Your task to perform on an android device: check android version Image 0: 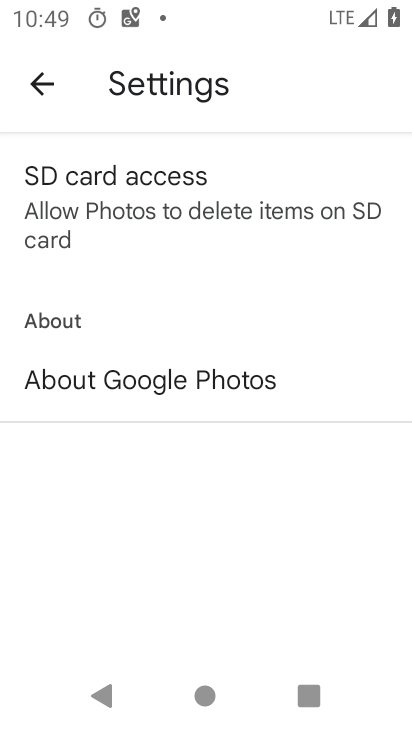
Step 0: press home button
Your task to perform on an android device: check android version Image 1: 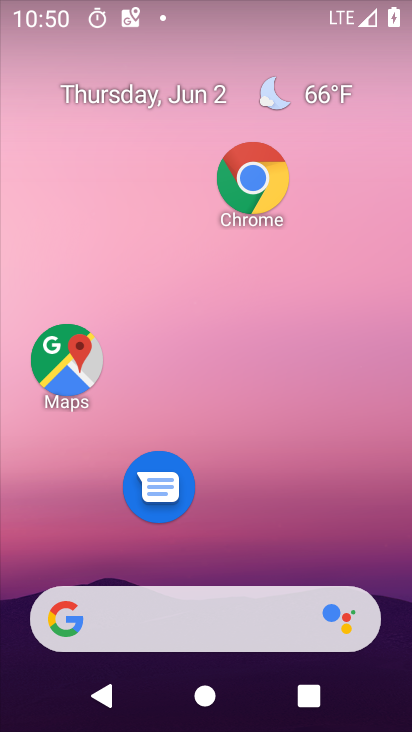
Step 1: drag from (240, 718) to (240, 36)
Your task to perform on an android device: check android version Image 2: 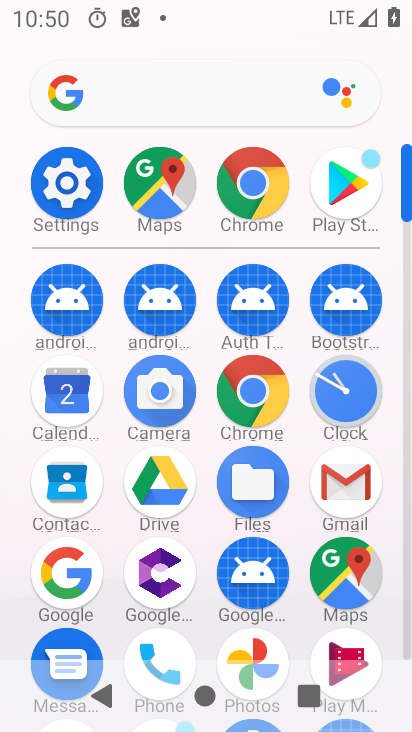
Step 2: click (69, 184)
Your task to perform on an android device: check android version Image 3: 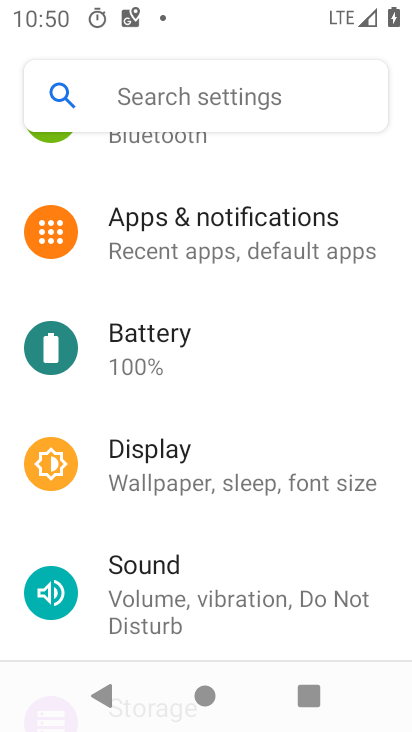
Step 3: drag from (207, 641) to (210, 111)
Your task to perform on an android device: check android version Image 4: 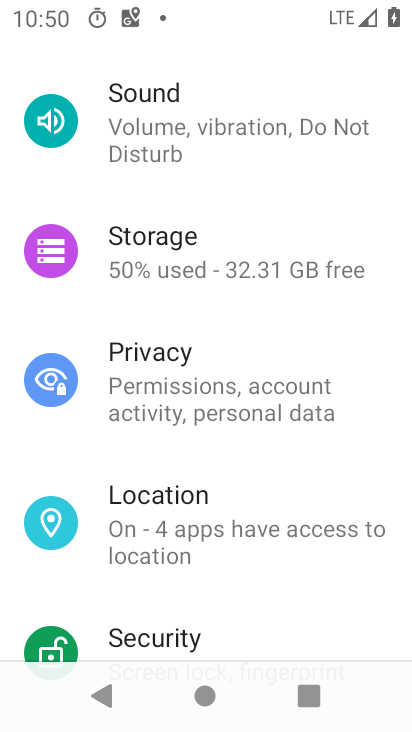
Step 4: drag from (238, 625) to (241, 174)
Your task to perform on an android device: check android version Image 5: 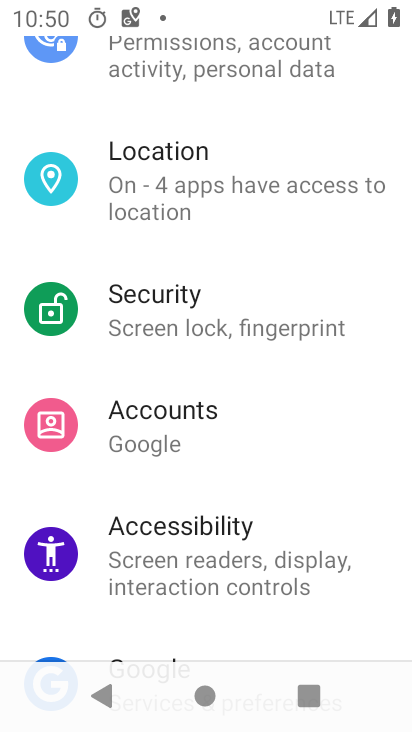
Step 5: drag from (232, 641) to (233, 102)
Your task to perform on an android device: check android version Image 6: 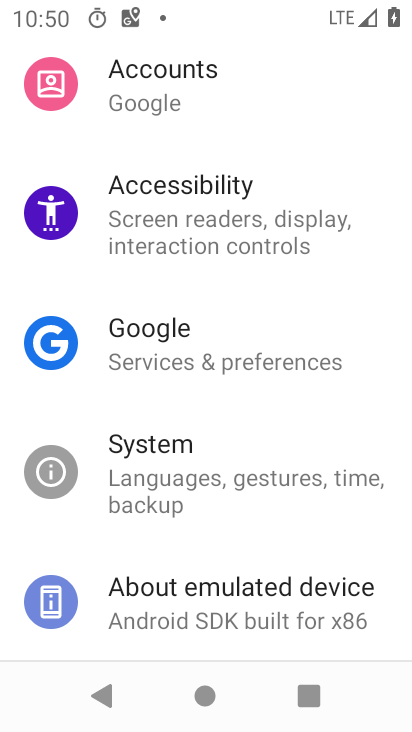
Step 6: drag from (243, 582) to (243, 112)
Your task to perform on an android device: check android version Image 7: 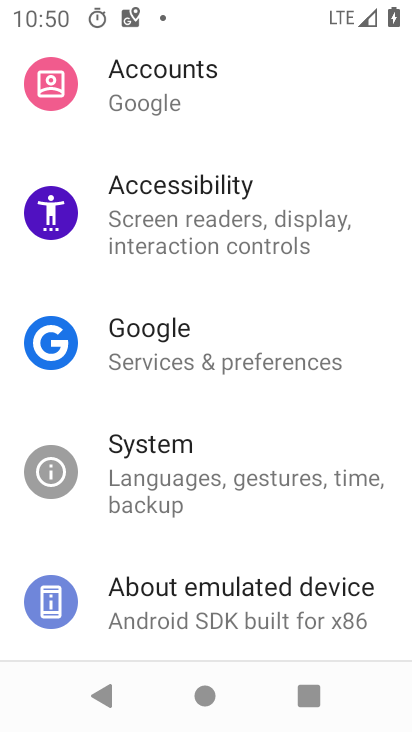
Step 7: click (184, 607)
Your task to perform on an android device: check android version Image 8: 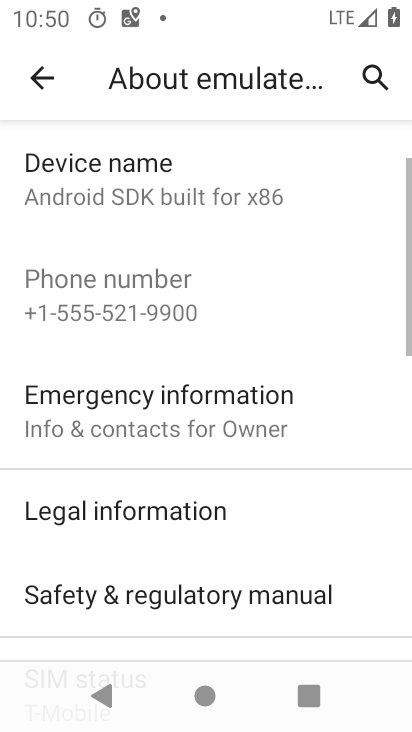
Step 8: drag from (146, 621) to (146, 174)
Your task to perform on an android device: check android version Image 9: 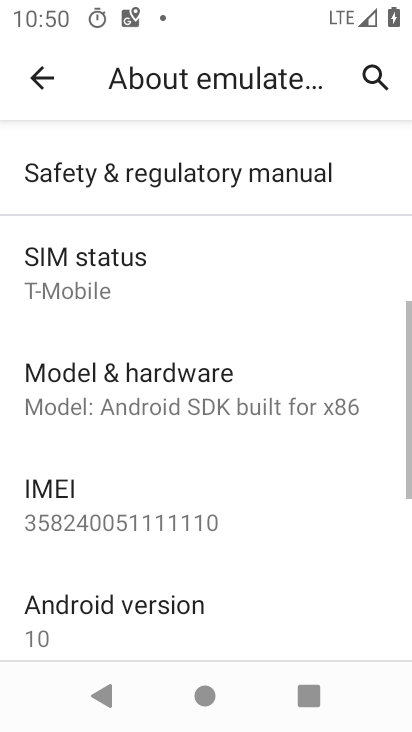
Step 9: click (115, 604)
Your task to perform on an android device: check android version Image 10: 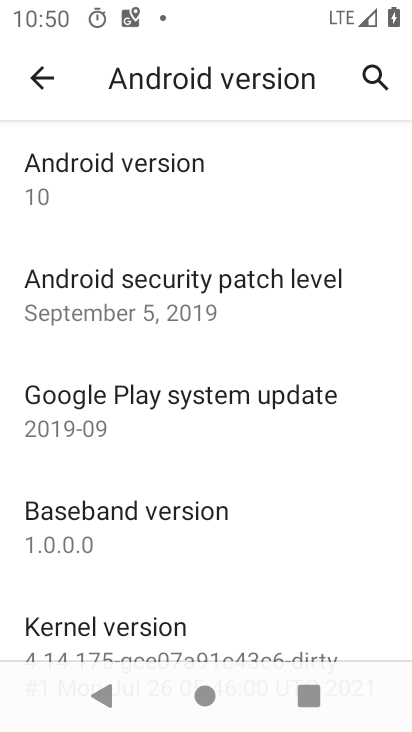
Step 10: click (54, 176)
Your task to perform on an android device: check android version Image 11: 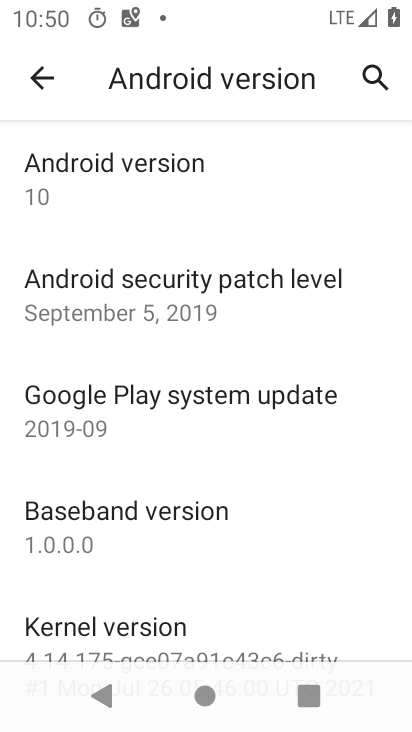
Step 11: task complete